Your task to perform on an android device: see creations saved in the google photos Image 0: 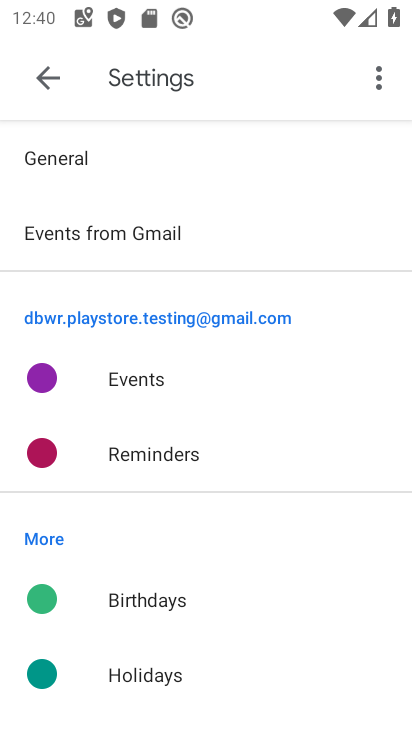
Step 0: press home button
Your task to perform on an android device: see creations saved in the google photos Image 1: 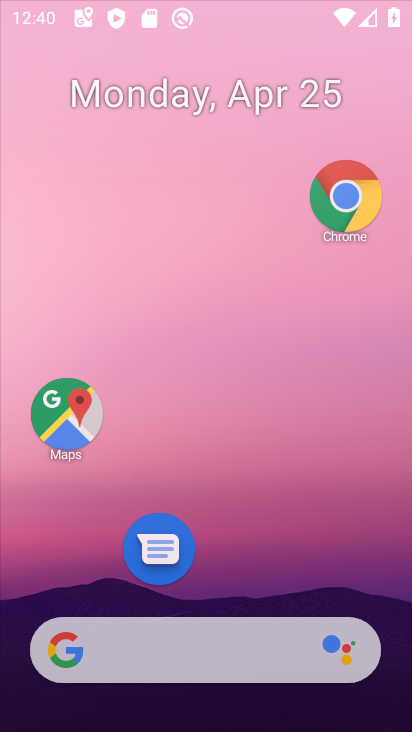
Step 1: press back button
Your task to perform on an android device: see creations saved in the google photos Image 2: 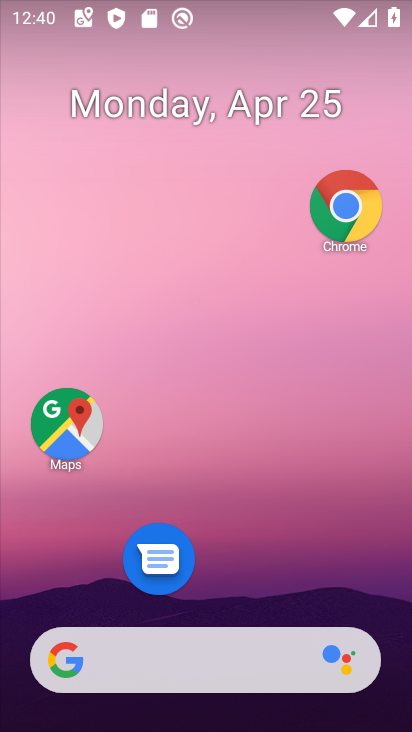
Step 2: drag from (249, 533) to (249, 35)
Your task to perform on an android device: see creations saved in the google photos Image 3: 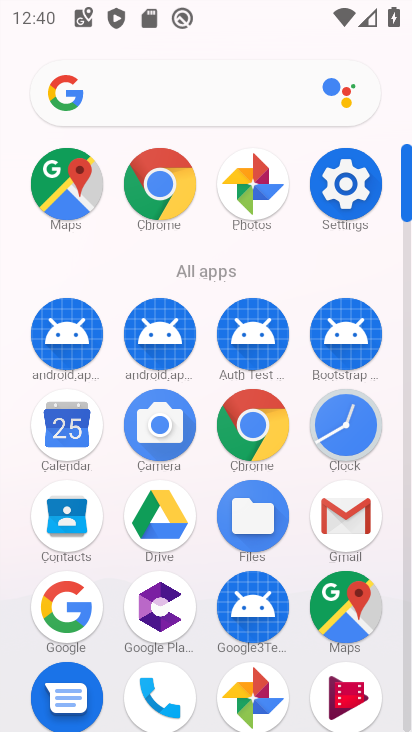
Step 3: click (257, 685)
Your task to perform on an android device: see creations saved in the google photos Image 4: 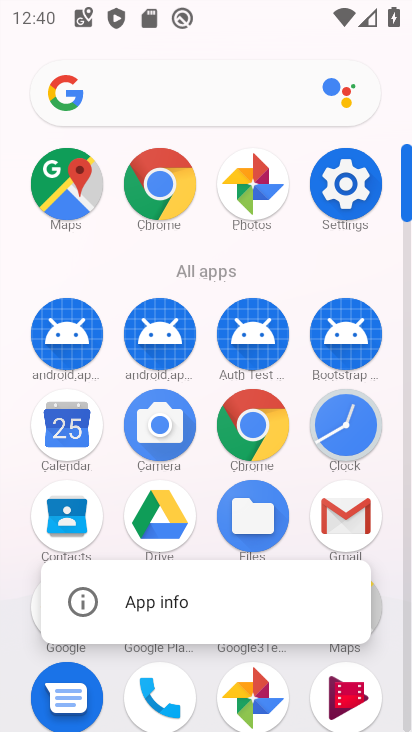
Step 4: click (248, 688)
Your task to perform on an android device: see creations saved in the google photos Image 5: 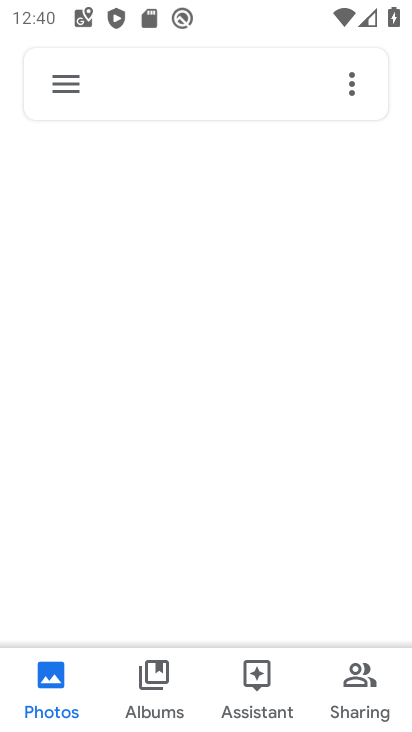
Step 5: click (57, 77)
Your task to perform on an android device: see creations saved in the google photos Image 6: 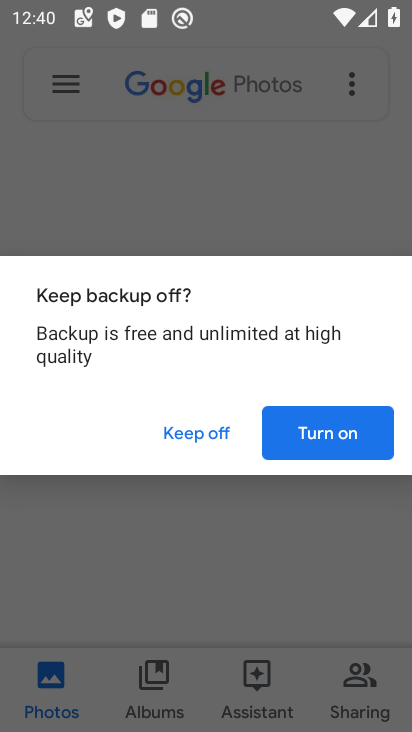
Step 6: click (194, 646)
Your task to perform on an android device: see creations saved in the google photos Image 7: 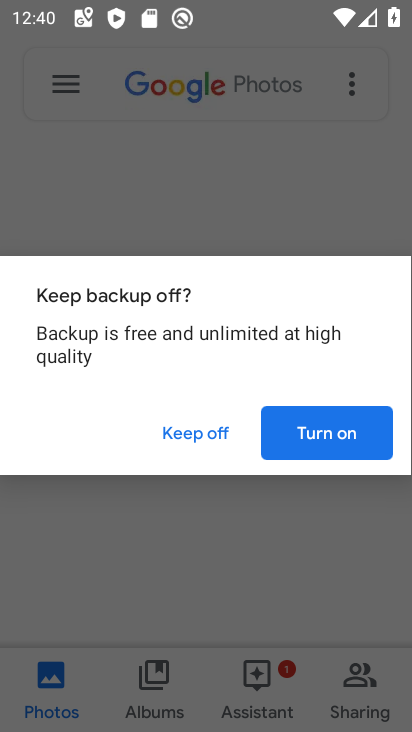
Step 7: click (205, 433)
Your task to perform on an android device: see creations saved in the google photos Image 8: 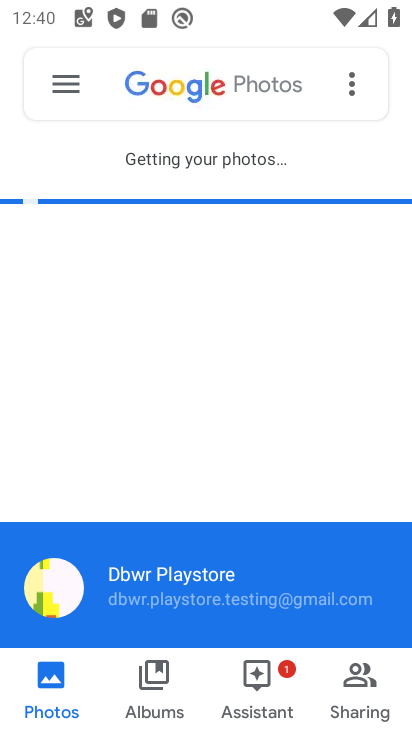
Step 8: click (58, 76)
Your task to perform on an android device: see creations saved in the google photos Image 9: 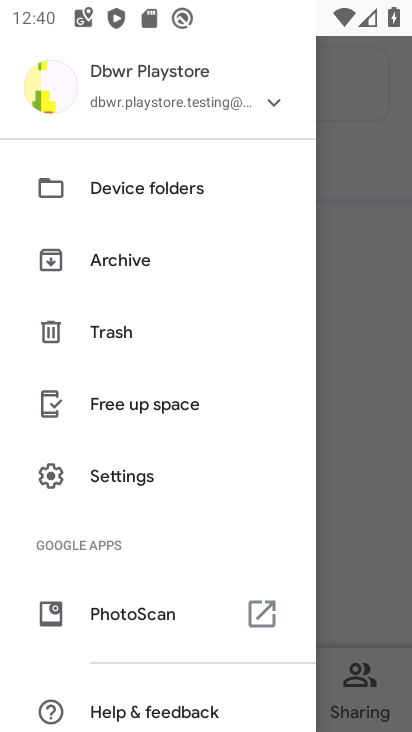
Step 9: click (123, 262)
Your task to perform on an android device: see creations saved in the google photos Image 10: 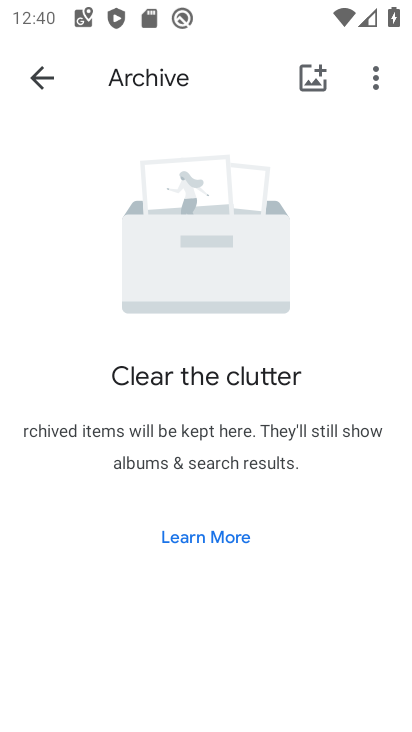
Step 10: task complete